Your task to perform on an android device: stop showing notifications on the lock screen Image 0: 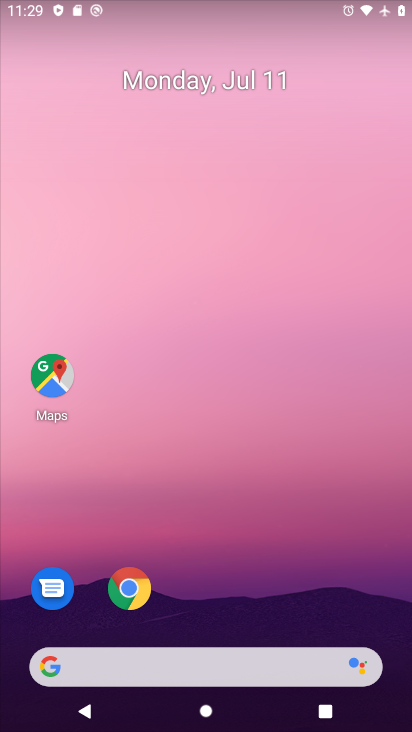
Step 0: drag from (118, 651) to (166, 115)
Your task to perform on an android device: stop showing notifications on the lock screen Image 1: 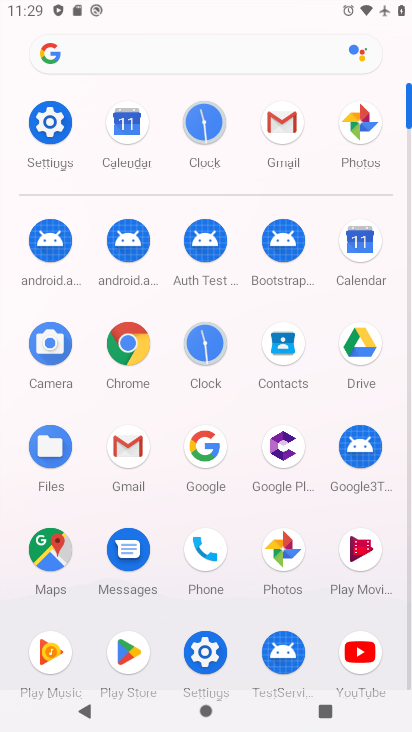
Step 1: click (51, 120)
Your task to perform on an android device: stop showing notifications on the lock screen Image 2: 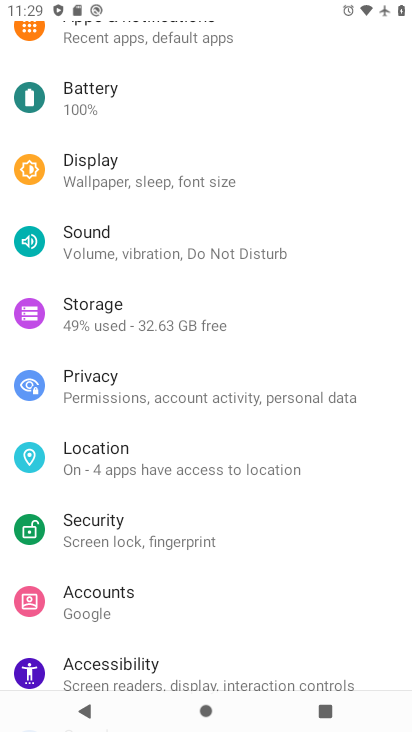
Step 2: drag from (326, 147) to (313, 554)
Your task to perform on an android device: stop showing notifications on the lock screen Image 3: 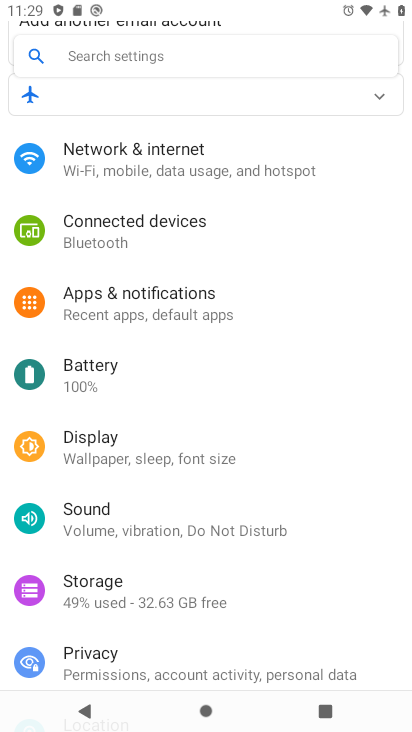
Step 3: click (181, 300)
Your task to perform on an android device: stop showing notifications on the lock screen Image 4: 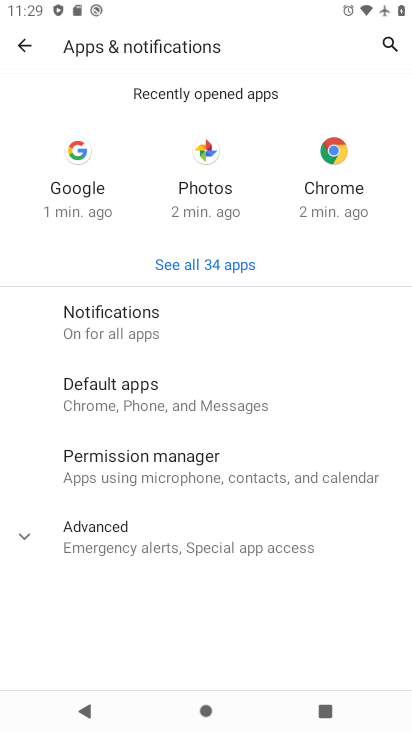
Step 4: click (132, 326)
Your task to perform on an android device: stop showing notifications on the lock screen Image 5: 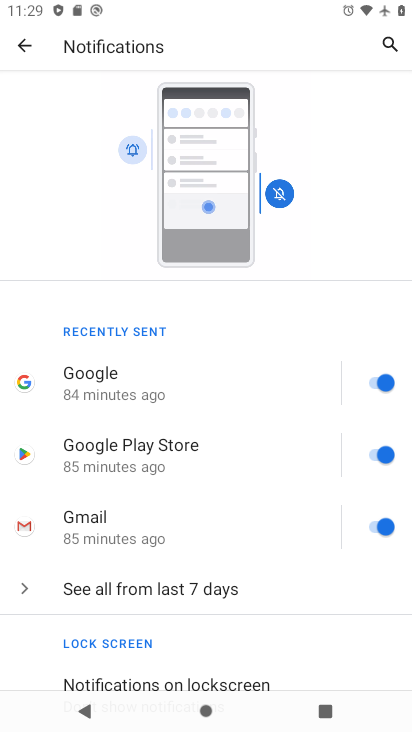
Step 5: drag from (156, 656) to (245, 243)
Your task to perform on an android device: stop showing notifications on the lock screen Image 6: 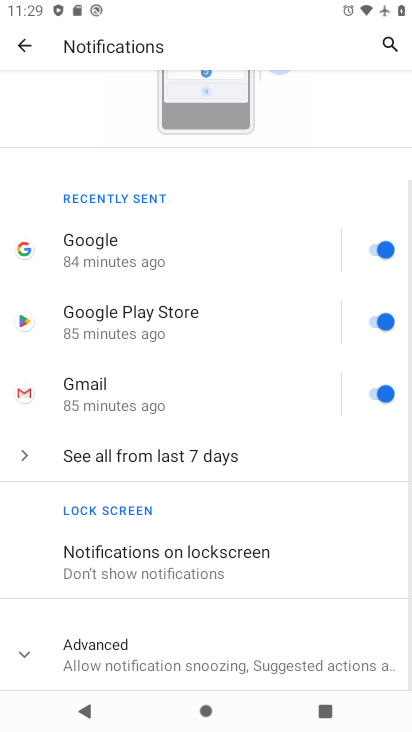
Step 6: click (161, 560)
Your task to perform on an android device: stop showing notifications on the lock screen Image 7: 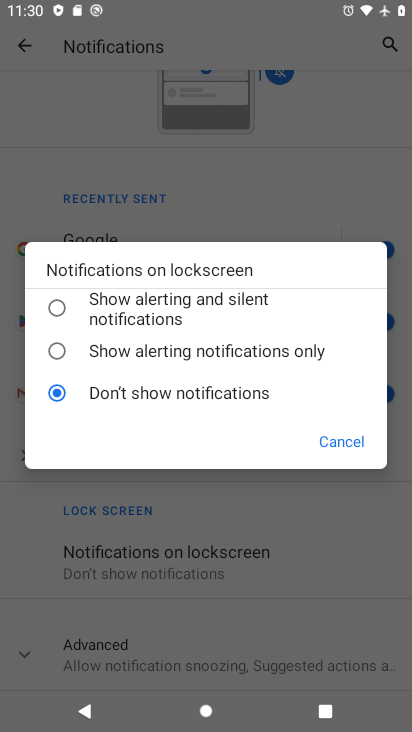
Step 7: task complete